Your task to perform on an android device: all mails in gmail Image 0: 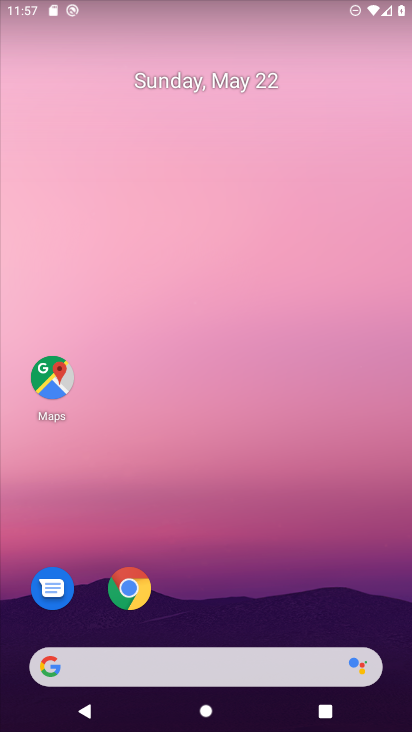
Step 0: drag from (180, 641) to (202, 86)
Your task to perform on an android device: all mails in gmail Image 1: 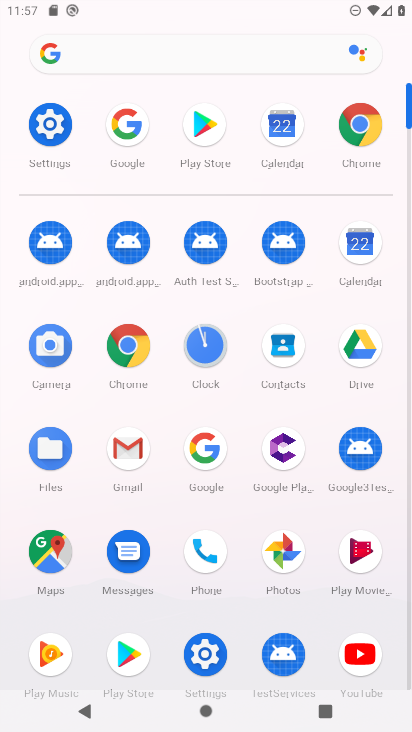
Step 1: click (138, 451)
Your task to perform on an android device: all mails in gmail Image 2: 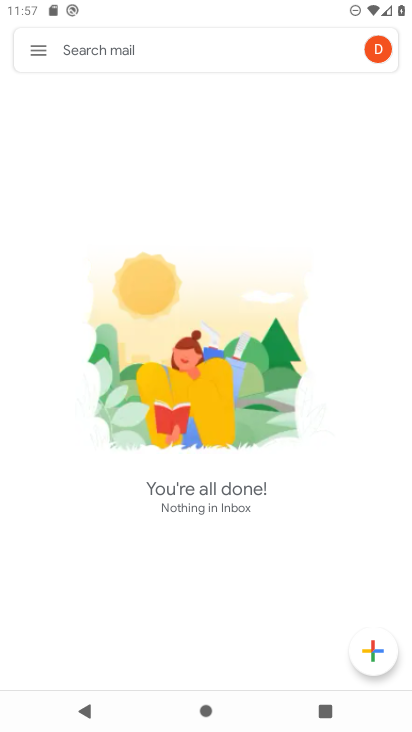
Step 2: click (33, 54)
Your task to perform on an android device: all mails in gmail Image 3: 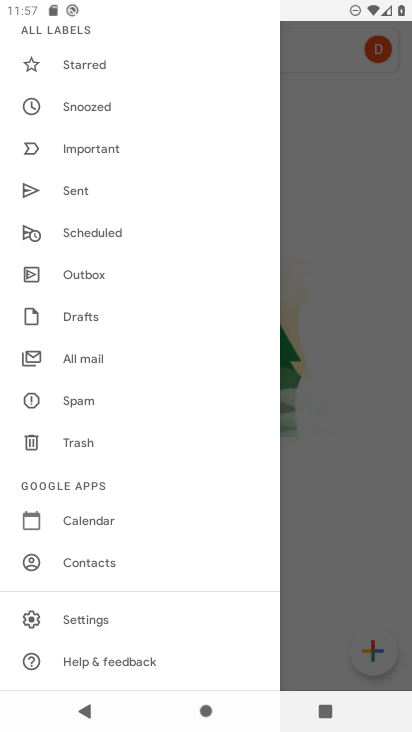
Step 3: click (95, 360)
Your task to perform on an android device: all mails in gmail Image 4: 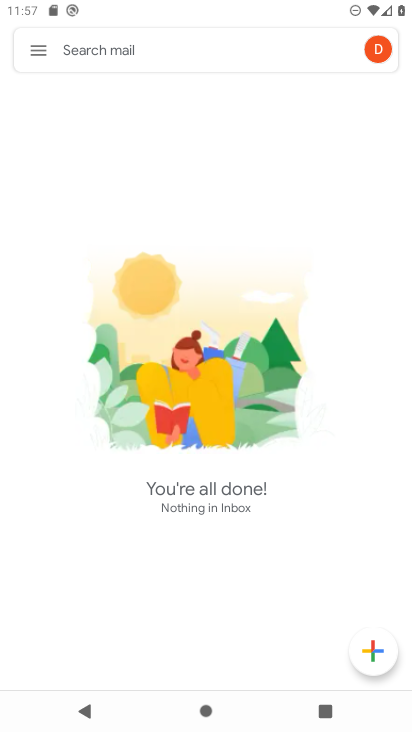
Step 4: task complete